Your task to perform on an android device: change notifications settings Image 0: 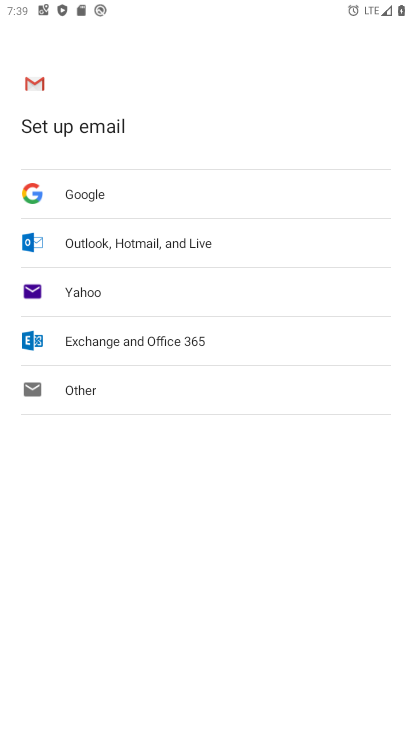
Step 0: press home button
Your task to perform on an android device: change notifications settings Image 1: 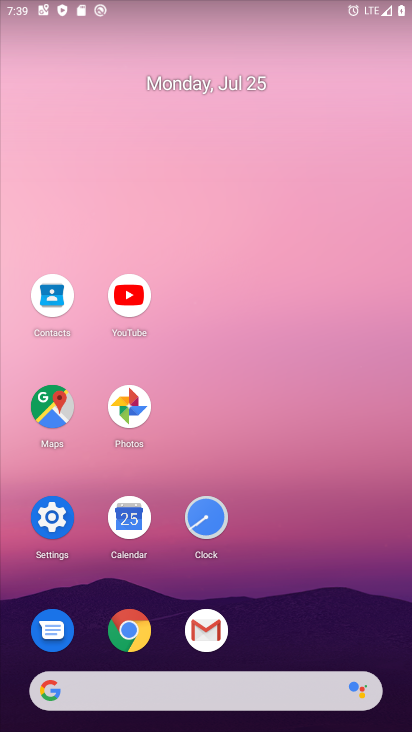
Step 1: click (50, 514)
Your task to perform on an android device: change notifications settings Image 2: 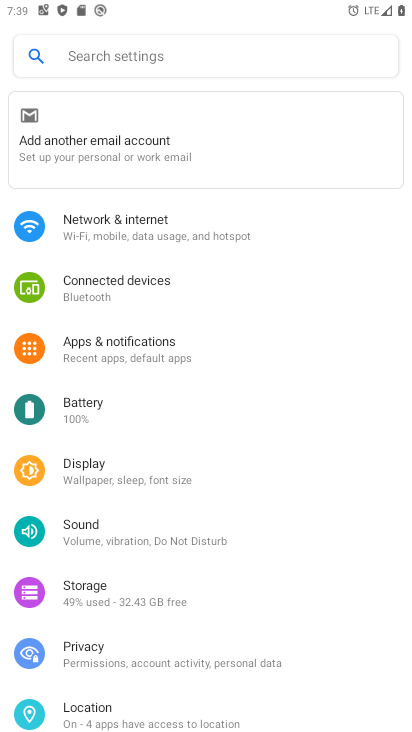
Step 2: click (115, 334)
Your task to perform on an android device: change notifications settings Image 3: 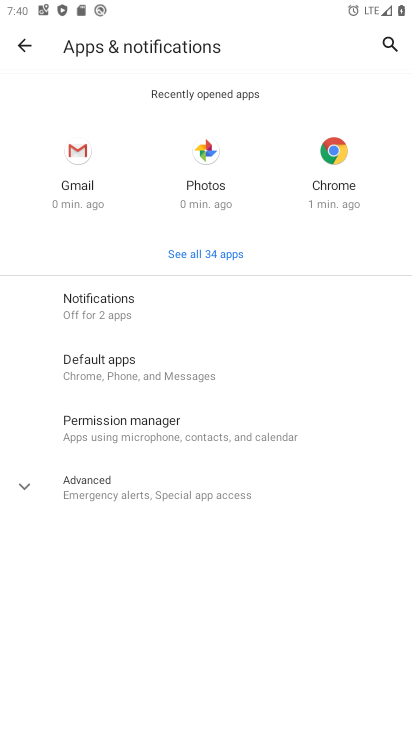
Step 3: click (87, 290)
Your task to perform on an android device: change notifications settings Image 4: 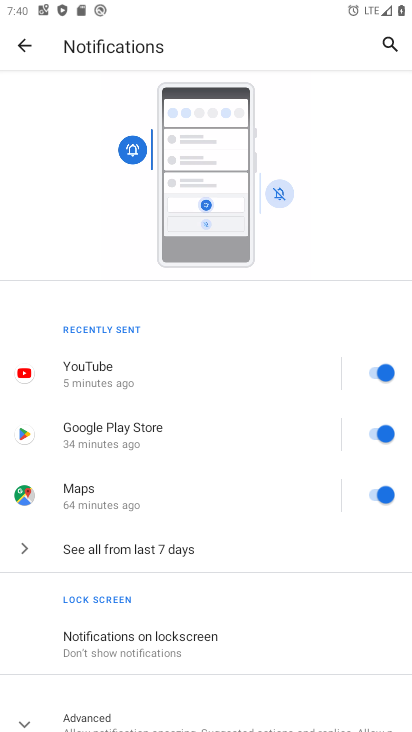
Step 4: click (101, 555)
Your task to perform on an android device: change notifications settings Image 5: 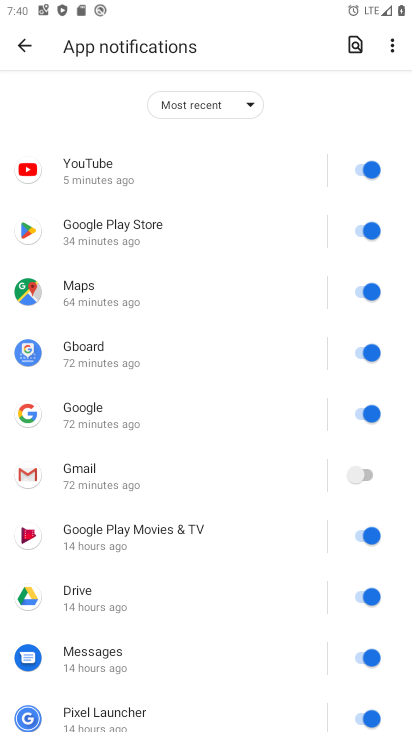
Step 5: click (252, 105)
Your task to perform on an android device: change notifications settings Image 6: 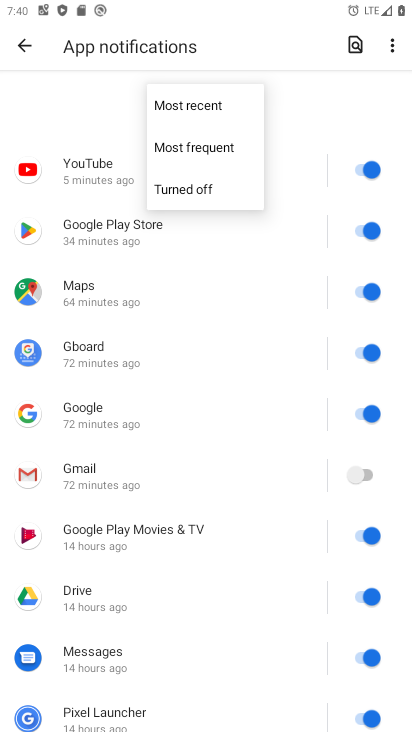
Step 6: click (190, 186)
Your task to perform on an android device: change notifications settings Image 7: 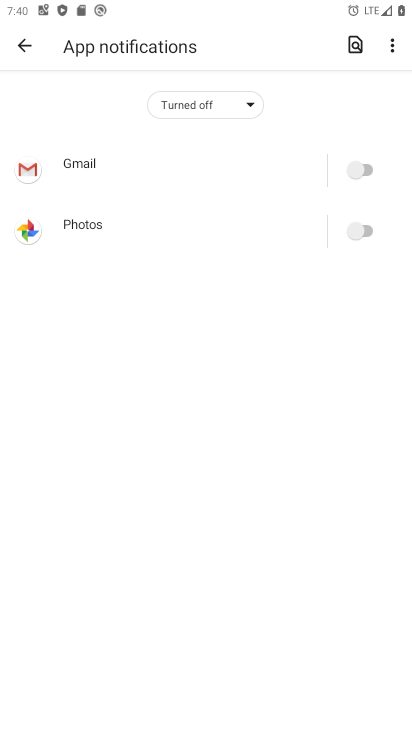
Step 7: task complete